Your task to perform on an android device: Go to settings Image 0: 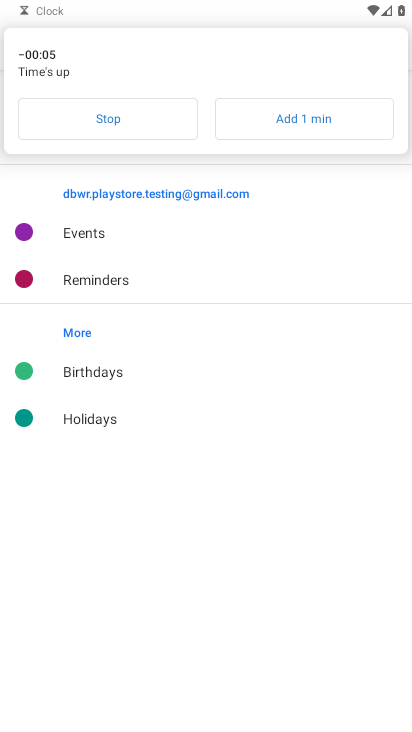
Step 0: press home button
Your task to perform on an android device: Go to settings Image 1: 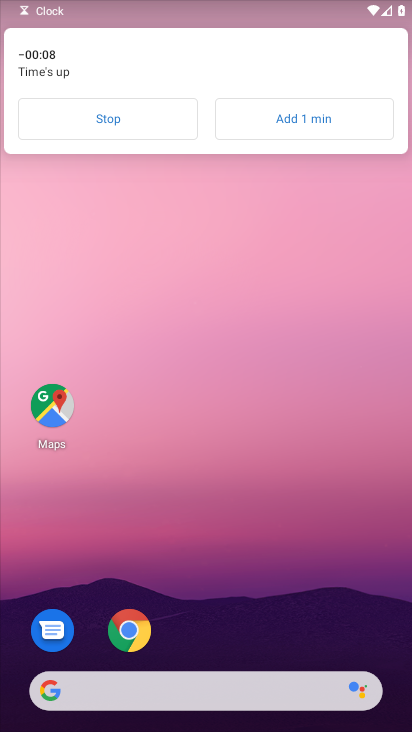
Step 1: drag from (212, 640) to (212, 179)
Your task to perform on an android device: Go to settings Image 2: 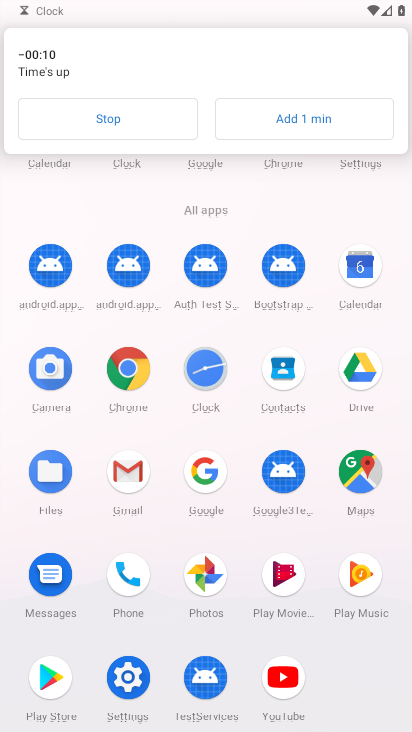
Step 2: click (162, 125)
Your task to perform on an android device: Go to settings Image 3: 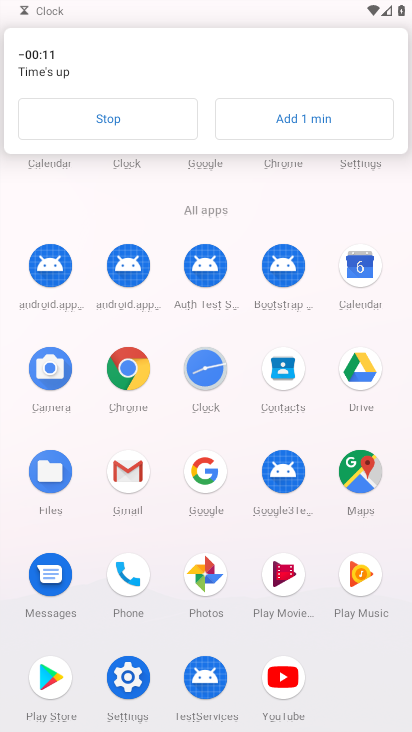
Step 3: click (127, 670)
Your task to perform on an android device: Go to settings Image 4: 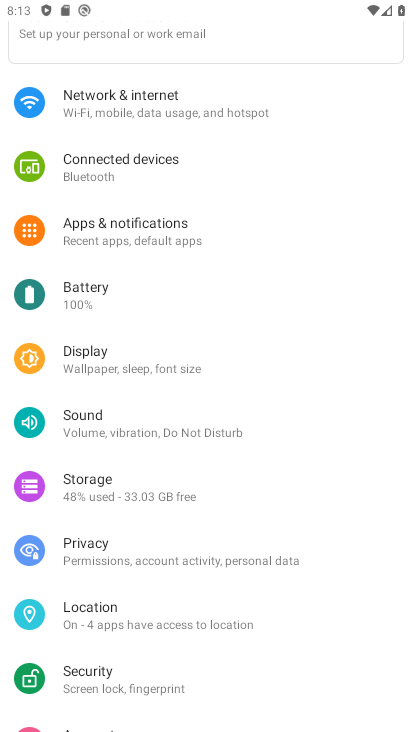
Step 4: task complete